Your task to perform on an android device: open device folders in google photos Image 0: 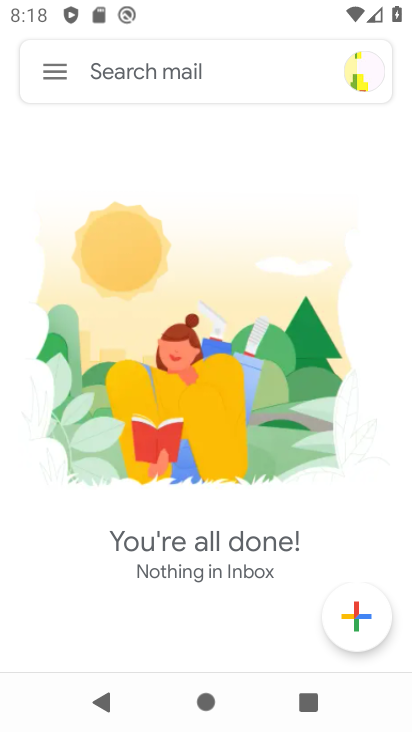
Step 0: press home button
Your task to perform on an android device: open device folders in google photos Image 1: 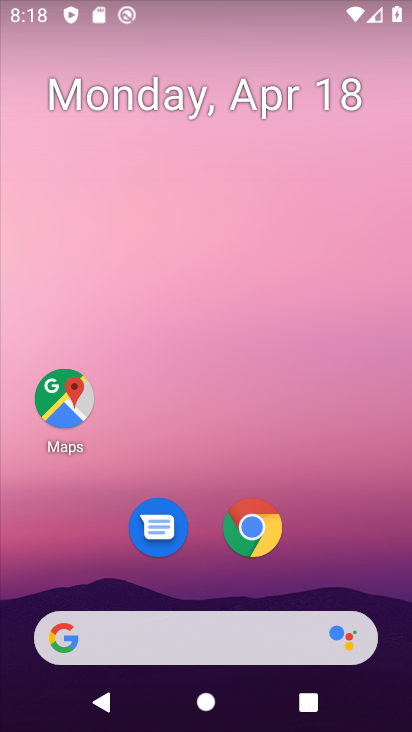
Step 1: drag from (185, 249) to (191, 38)
Your task to perform on an android device: open device folders in google photos Image 2: 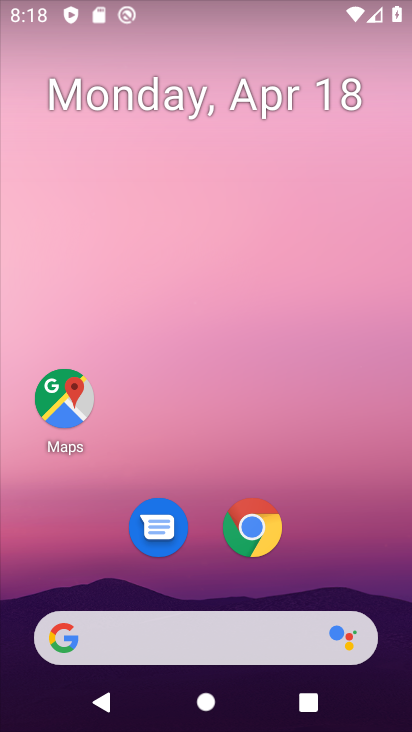
Step 2: drag from (198, 570) to (199, 54)
Your task to perform on an android device: open device folders in google photos Image 3: 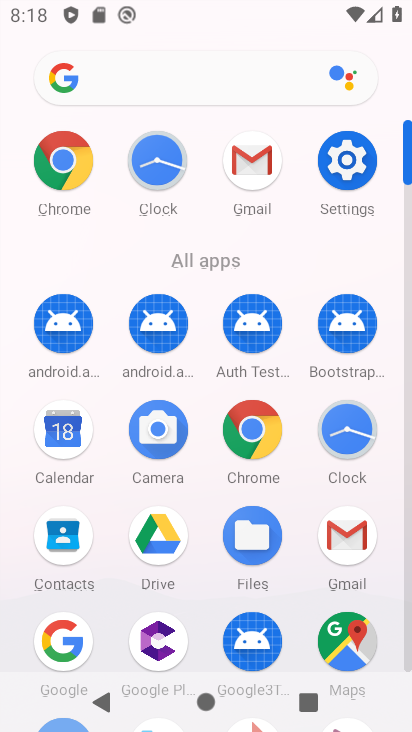
Step 3: drag from (199, 649) to (228, 163)
Your task to perform on an android device: open device folders in google photos Image 4: 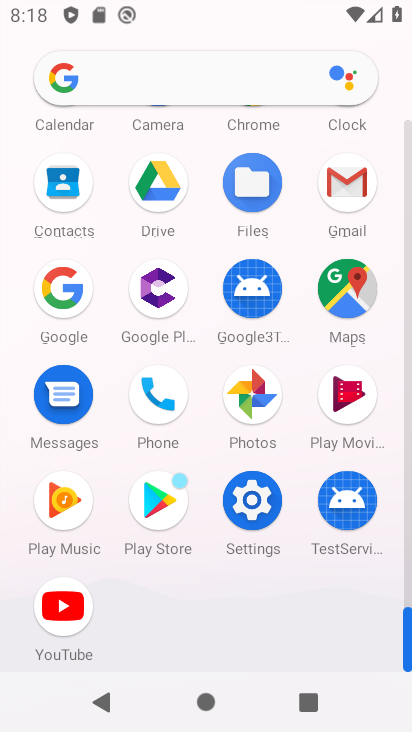
Step 4: click (260, 399)
Your task to perform on an android device: open device folders in google photos Image 5: 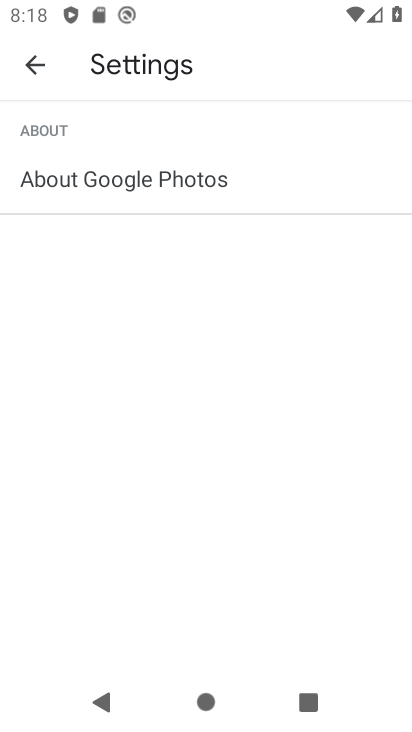
Step 5: click (31, 60)
Your task to perform on an android device: open device folders in google photos Image 6: 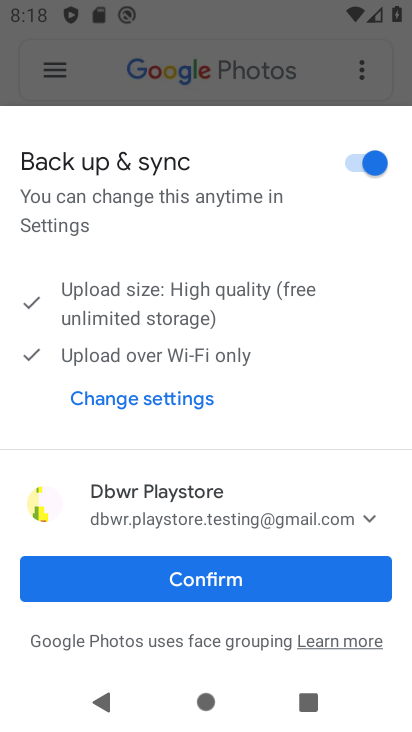
Step 6: click (195, 587)
Your task to perform on an android device: open device folders in google photos Image 7: 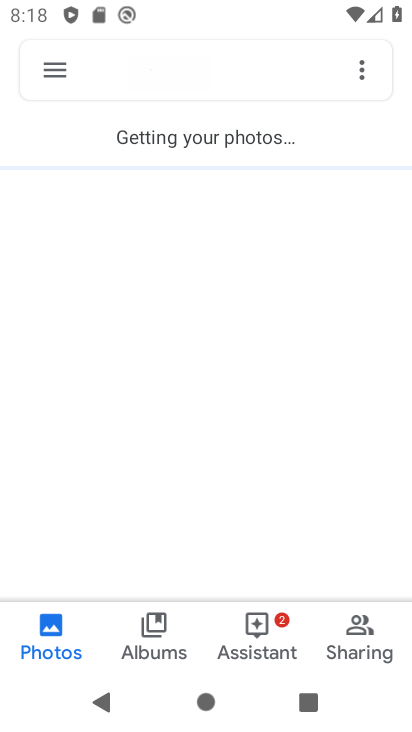
Step 7: click (49, 74)
Your task to perform on an android device: open device folders in google photos Image 8: 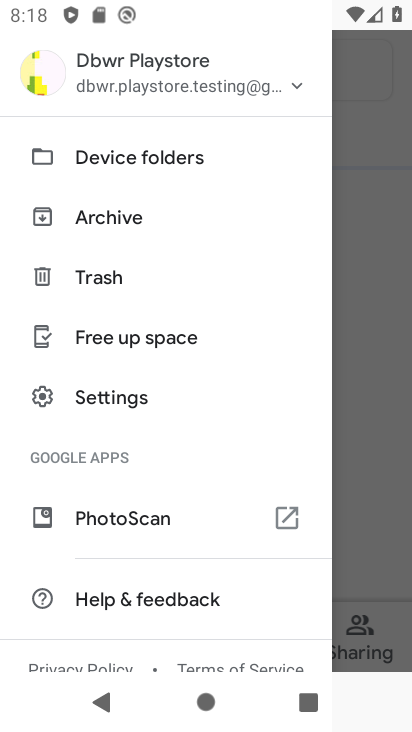
Step 8: click (153, 160)
Your task to perform on an android device: open device folders in google photos Image 9: 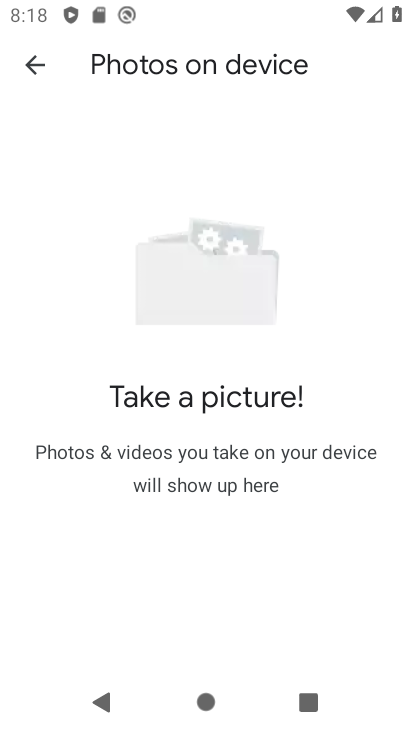
Step 9: task complete